Your task to perform on an android device: delete the emails in spam in the gmail app Image 0: 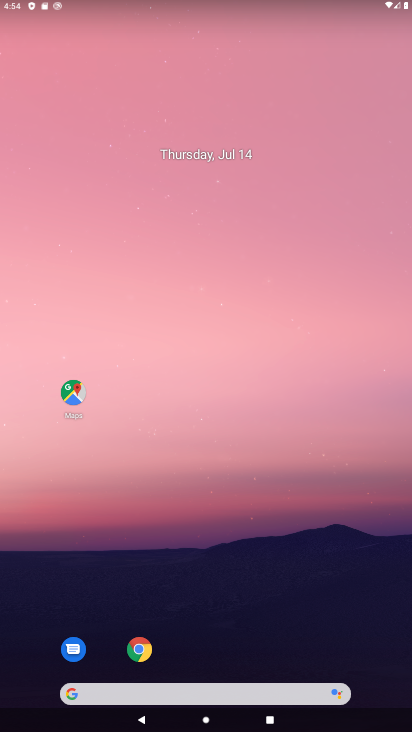
Step 0: drag from (225, 619) to (318, 2)
Your task to perform on an android device: delete the emails in spam in the gmail app Image 1: 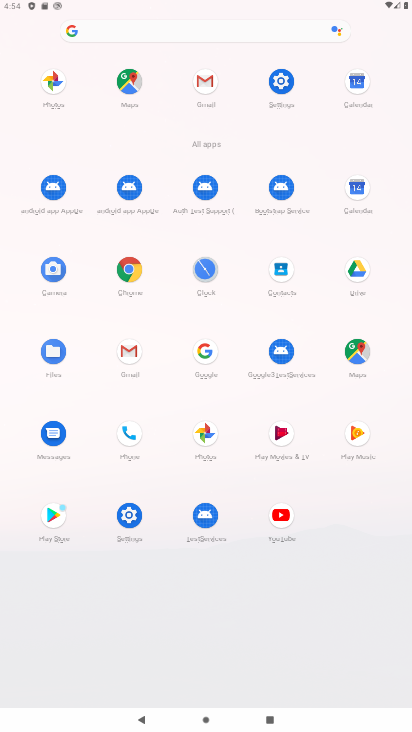
Step 1: click (209, 87)
Your task to perform on an android device: delete the emails in spam in the gmail app Image 2: 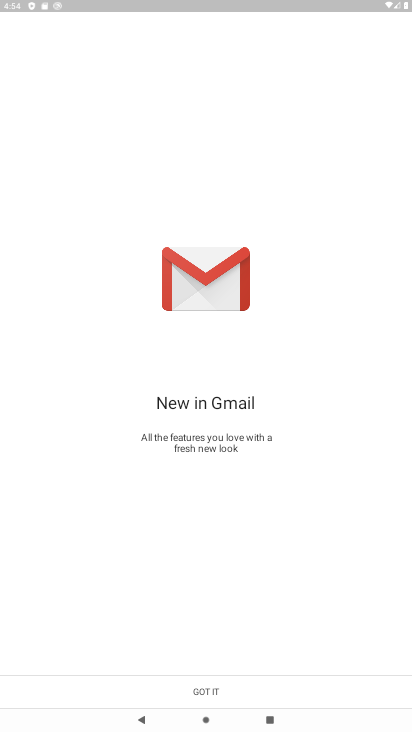
Step 2: click (219, 683)
Your task to perform on an android device: delete the emails in spam in the gmail app Image 3: 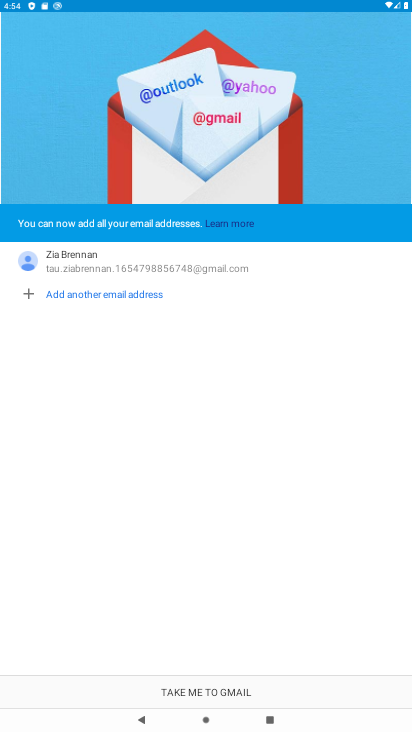
Step 3: click (199, 681)
Your task to perform on an android device: delete the emails in spam in the gmail app Image 4: 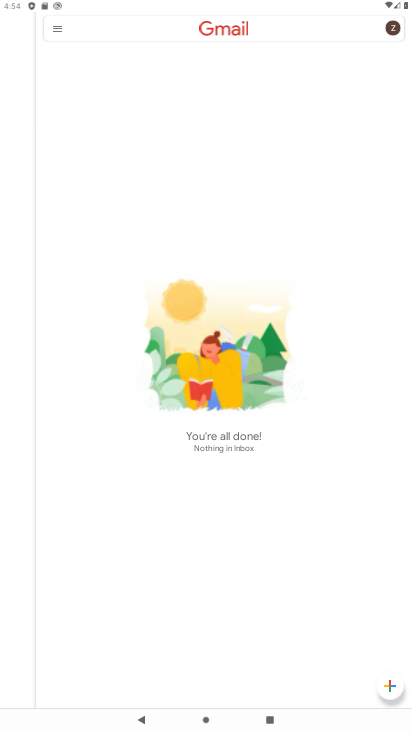
Step 4: click (59, 28)
Your task to perform on an android device: delete the emails in spam in the gmail app Image 5: 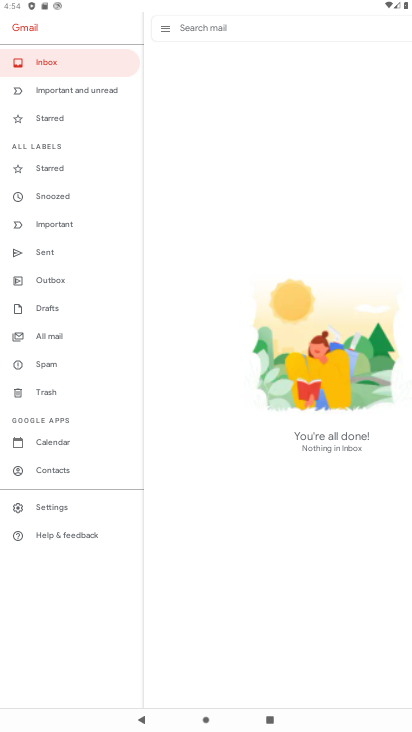
Step 5: click (56, 357)
Your task to perform on an android device: delete the emails in spam in the gmail app Image 6: 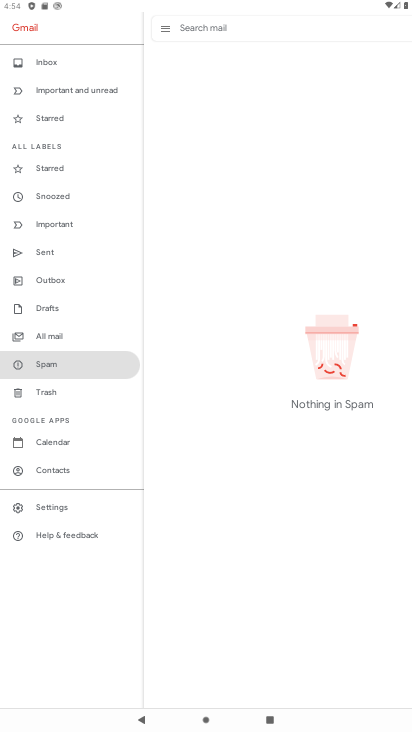
Step 6: task complete